Your task to perform on an android device: turn on showing notifications on the lock screen Image 0: 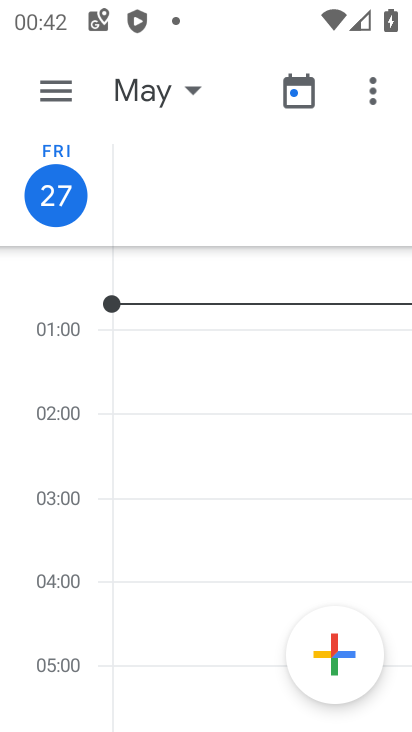
Step 0: press home button
Your task to perform on an android device: turn on showing notifications on the lock screen Image 1: 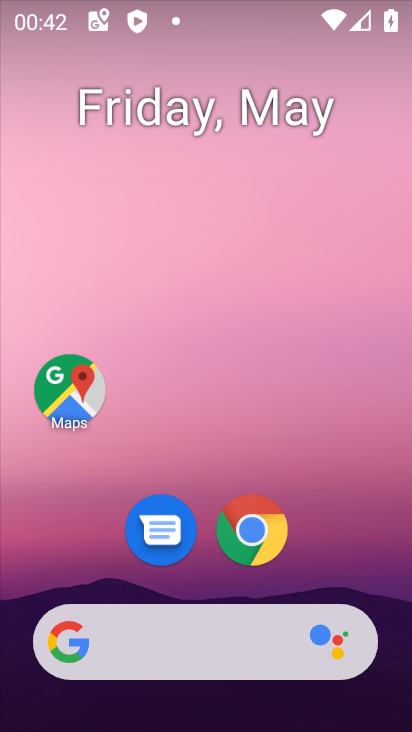
Step 1: drag from (327, 559) to (286, 130)
Your task to perform on an android device: turn on showing notifications on the lock screen Image 2: 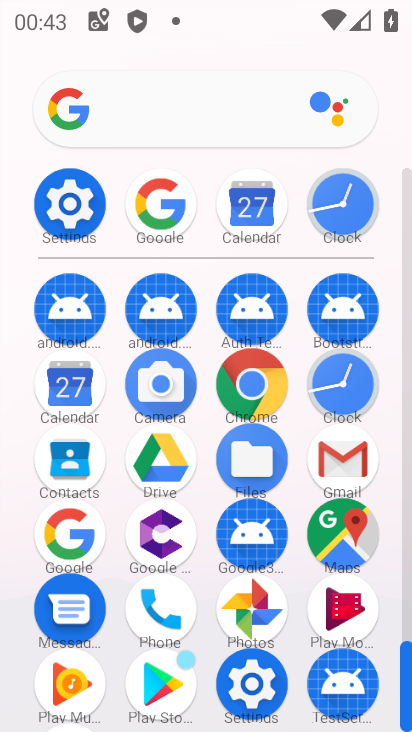
Step 2: click (68, 204)
Your task to perform on an android device: turn on showing notifications on the lock screen Image 3: 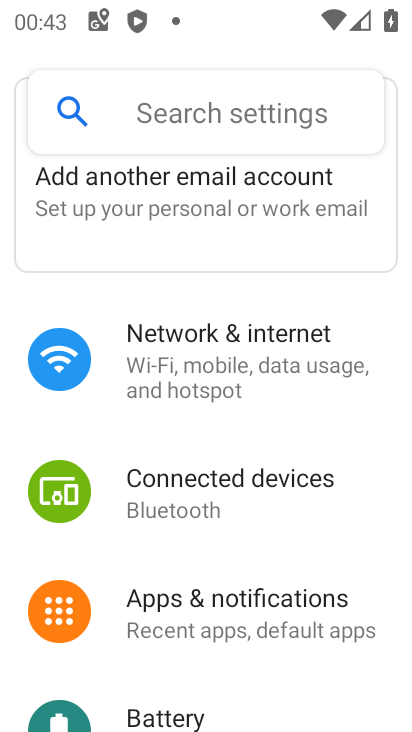
Step 3: drag from (184, 557) to (265, 417)
Your task to perform on an android device: turn on showing notifications on the lock screen Image 4: 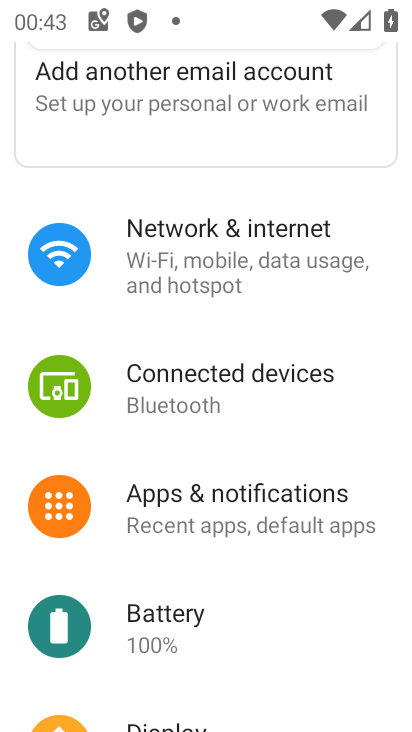
Step 4: click (246, 490)
Your task to perform on an android device: turn on showing notifications on the lock screen Image 5: 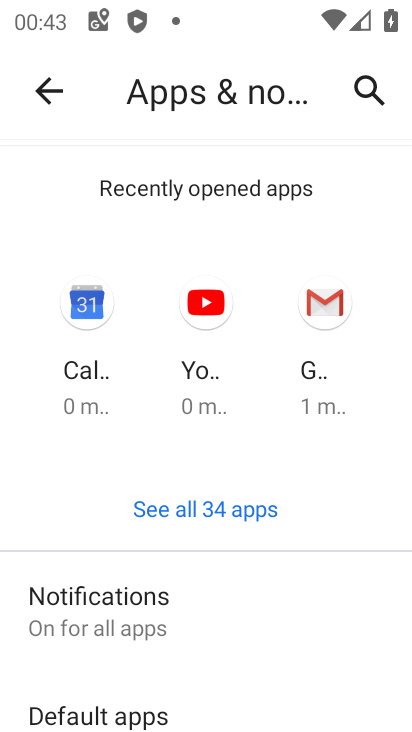
Step 5: click (125, 598)
Your task to perform on an android device: turn on showing notifications on the lock screen Image 6: 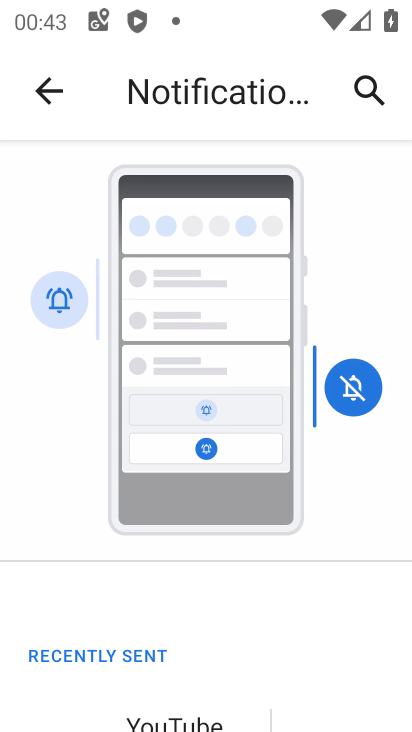
Step 6: drag from (225, 677) to (283, 533)
Your task to perform on an android device: turn on showing notifications on the lock screen Image 7: 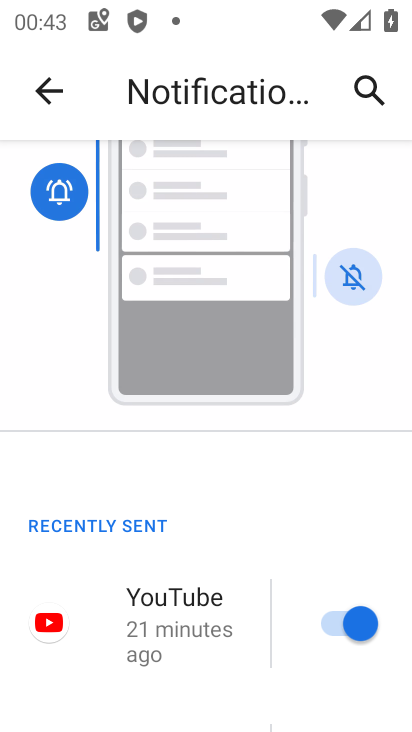
Step 7: drag from (198, 667) to (228, 526)
Your task to perform on an android device: turn on showing notifications on the lock screen Image 8: 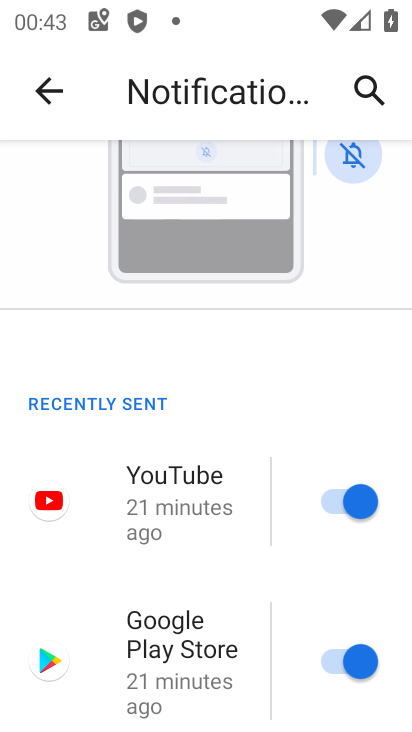
Step 8: drag from (180, 597) to (256, 452)
Your task to perform on an android device: turn on showing notifications on the lock screen Image 9: 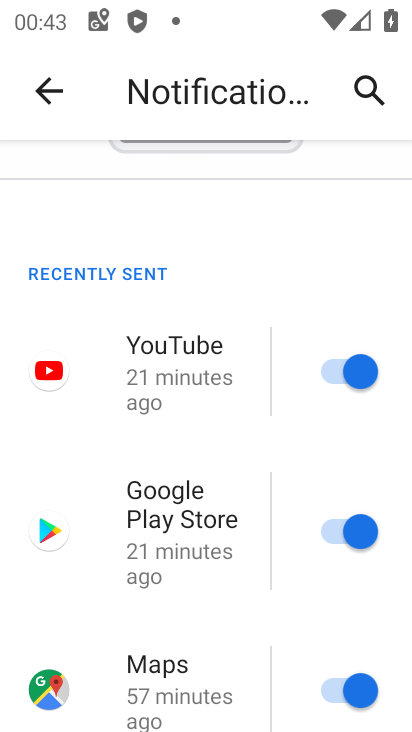
Step 9: drag from (159, 636) to (270, 500)
Your task to perform on an android device: turn on showing notifications on the lock screen Image 10: 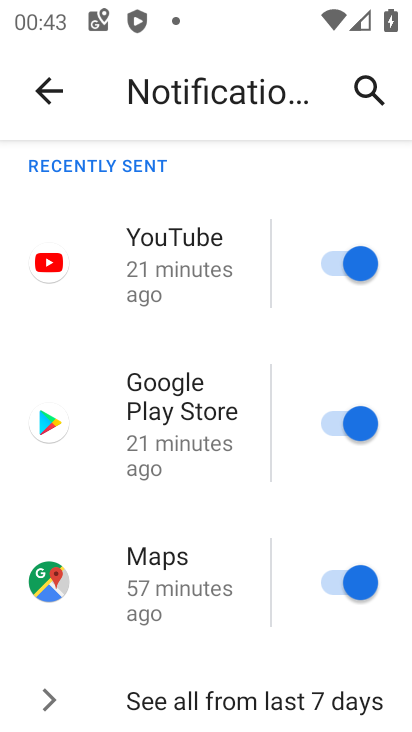
Step 10: drag from (165, 661) to (248, 515)
Your task to perform on an android device: turn on showing notifications on the lock screen Image 11: 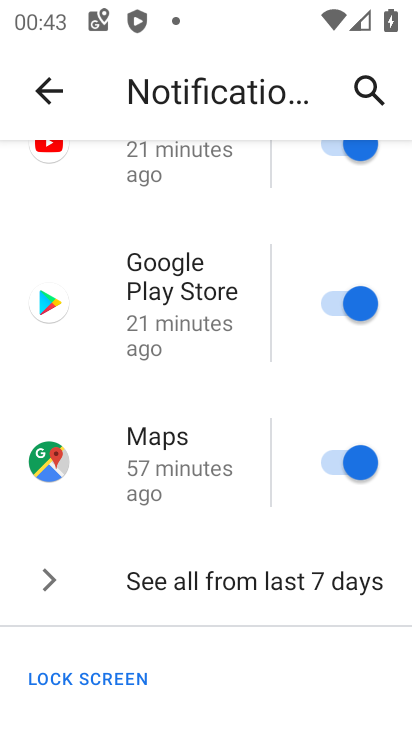
Step 11: drag from (187, 673) to (247, 433)
Your task to perform on an android device: turn on showing notifications on the lock screen Image 12: 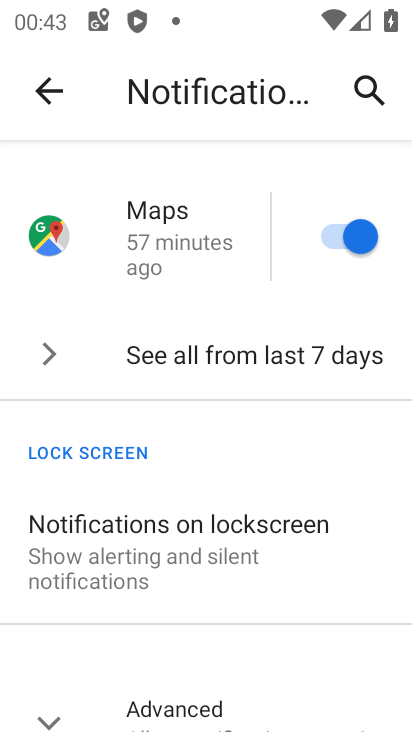
Step 12: click (195, 535)
Your task to perform on an android device: turn on showing notifications on the lock screen Image 13: 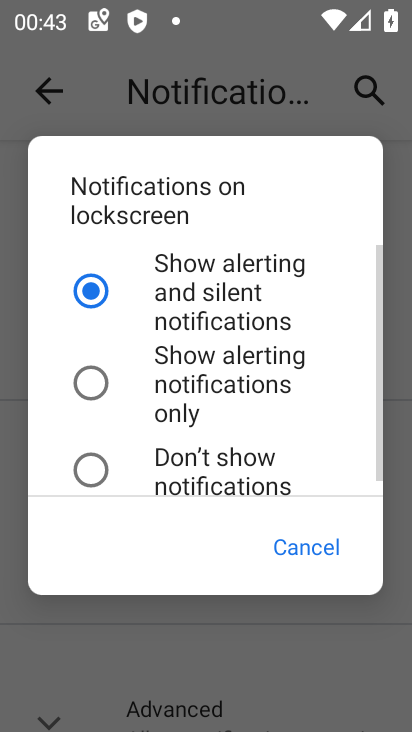
Step 13: click (104, 296)
Your task to perform on an android device: turn on showing notifications on the lock screen Image 14: 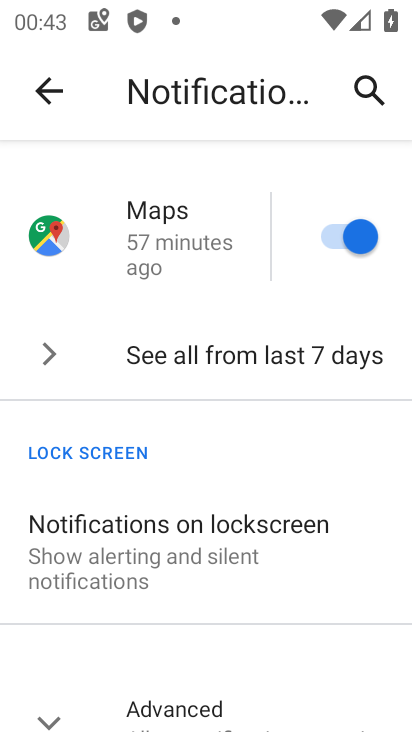
Step 14: task complete